Your task to perform on an android device: Go to Wikipedia Image 0: 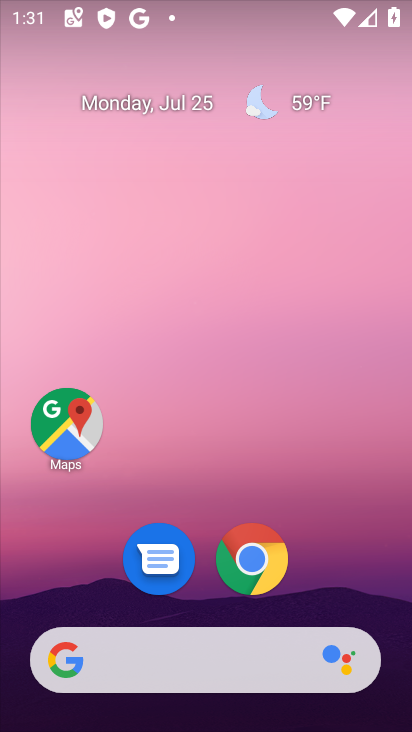
Step 0: click (272, 568)
Your task to perform on an android device: Go to Wikipedia Image 1: 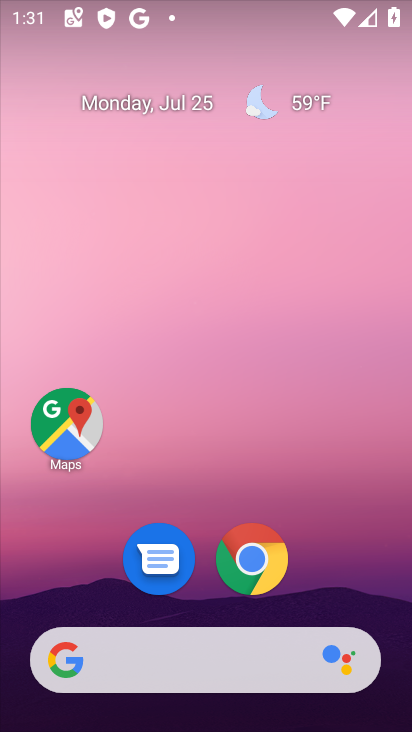
Step 1: click (253, 568)
Your task to perform on an android device: Go to Wikipedia Image 2: 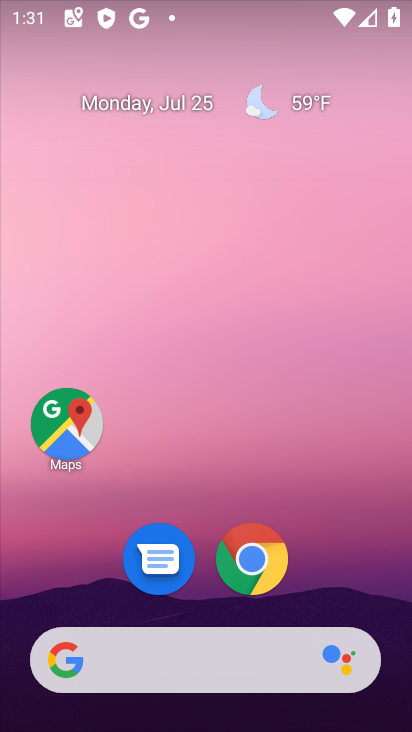
Step 2: click (254, 567)
Your task to perform on an android device: Go to Wikipedia Image 3: 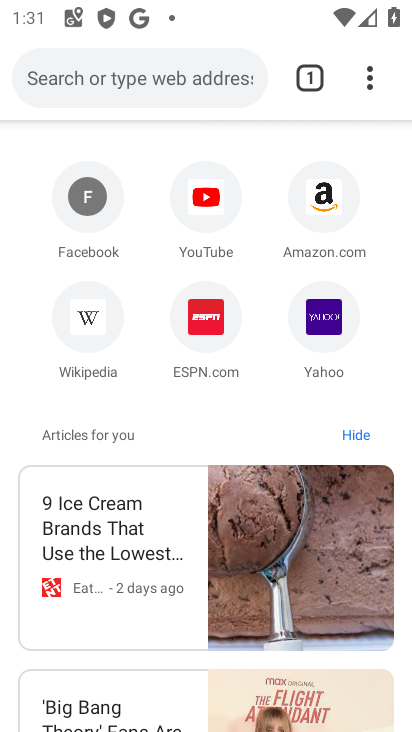
Step 3: click (85, 296)
Your task to perform on an android device: Go to Wikipedia Image 4: 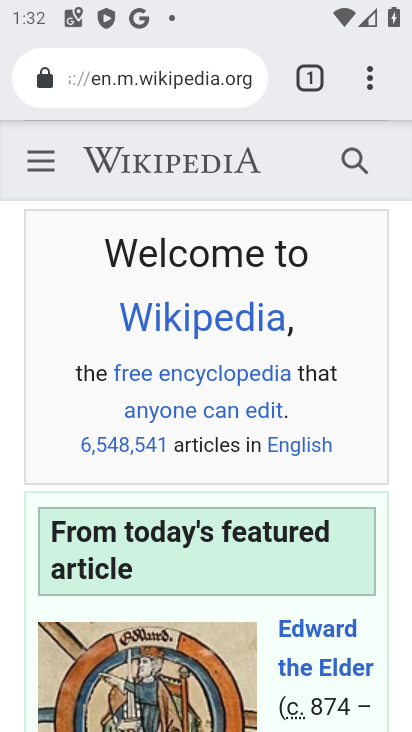
Step 4: task complete